Your task to perform on an android device: Go to network settings Image 0: 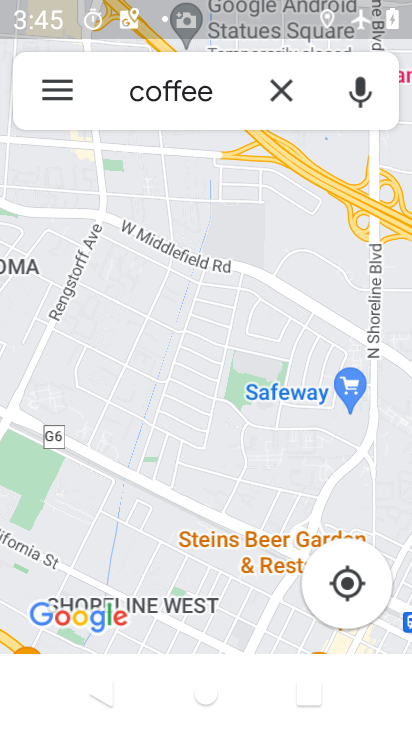
Step 0: press home button
Your task to perform on an android device: Go to network settings Image 1: 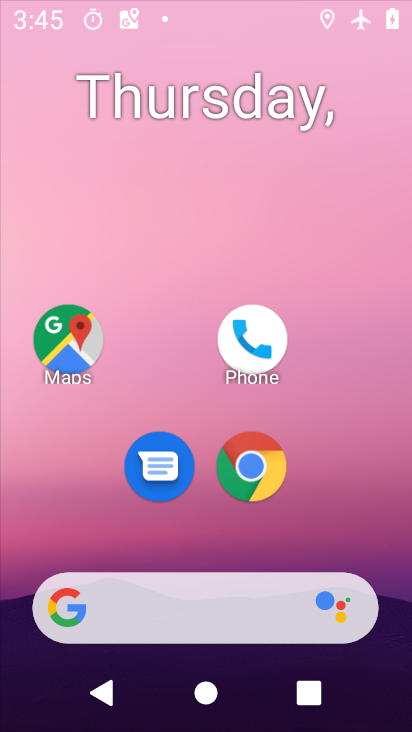
Step 1: drag from (201, 633) to (207, 128)
Your task to perform on an android device: Go to network settings Image 2: 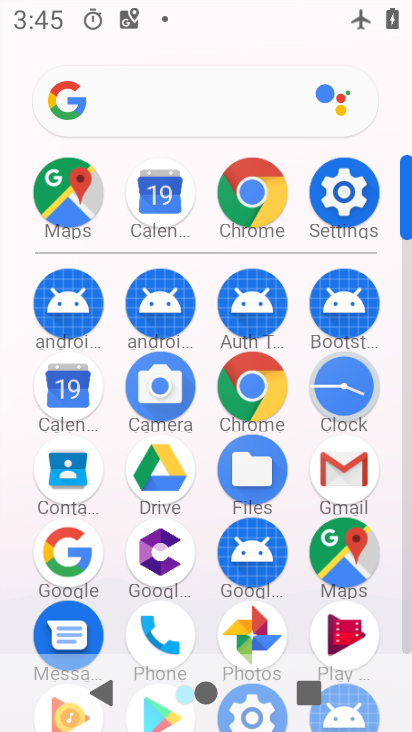
Step 2: click (324, 197)
Your task to perform on an android device: Go to network settings Image 3: 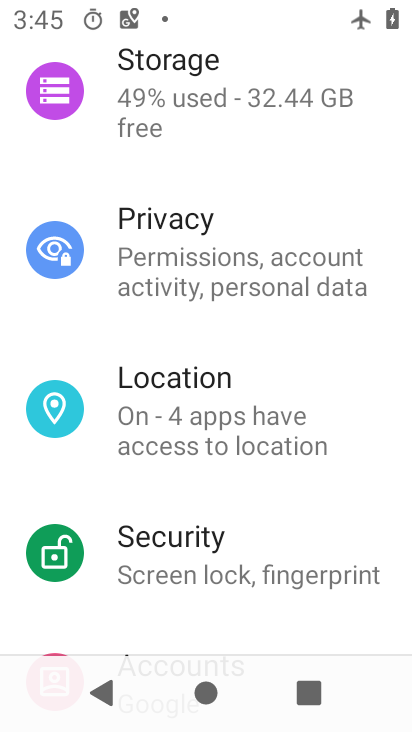
Step 3: drag from (172, 198) to (248, 730)
Your task to perform on an android device: Go to network settings Image 4: 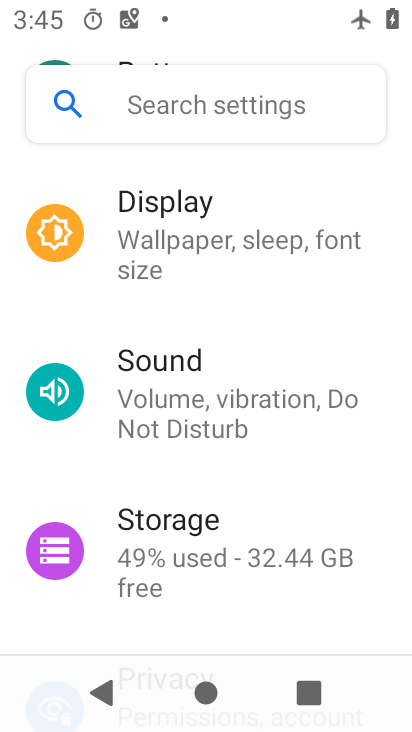
Step 4: drag from (209, 193) to (273, 645)
Your task to perform on an android device: Go to network settings Image 5: 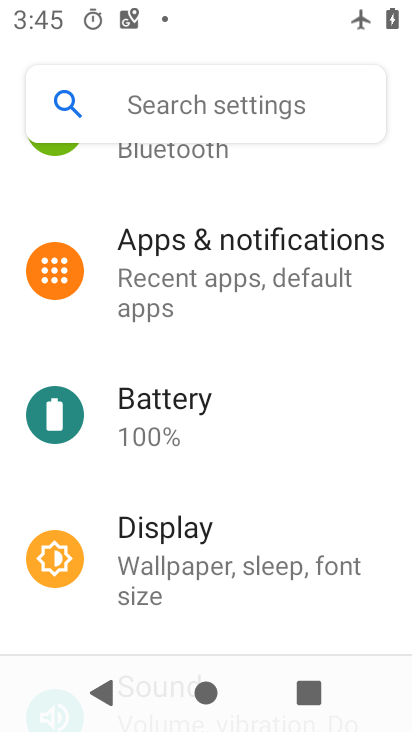
Step 5: drag from (223, 265) to (278, 681)
Your task to perform on an android device: Go to network settings Image 6: 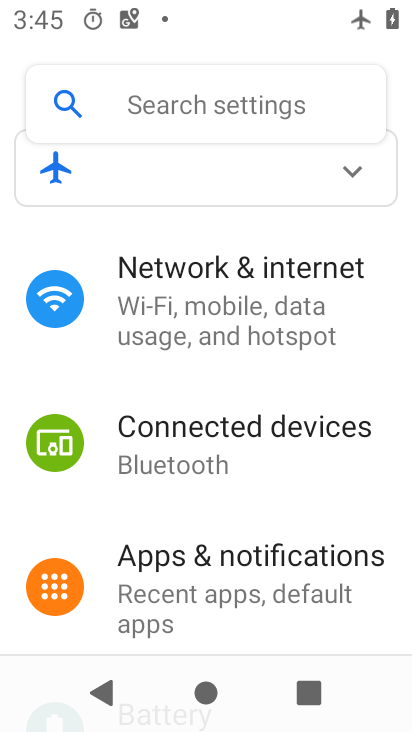
Step 6: click (176, 293)
Your task to perform on an android device: Go to network settings Image 7: 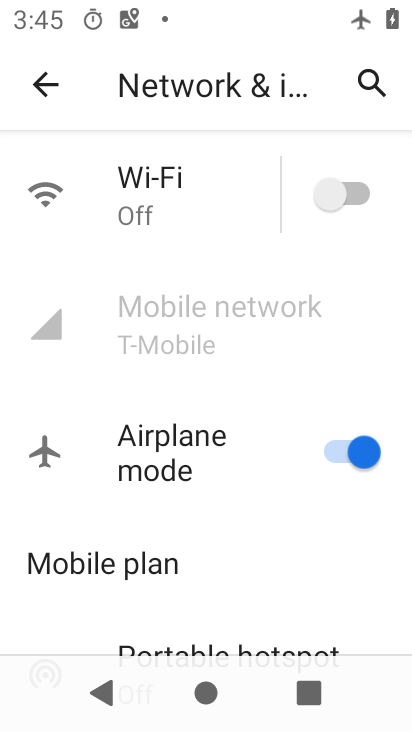
Step 7: task complete